Your task to perform on an android device: star an email in the gmail app Image 0: 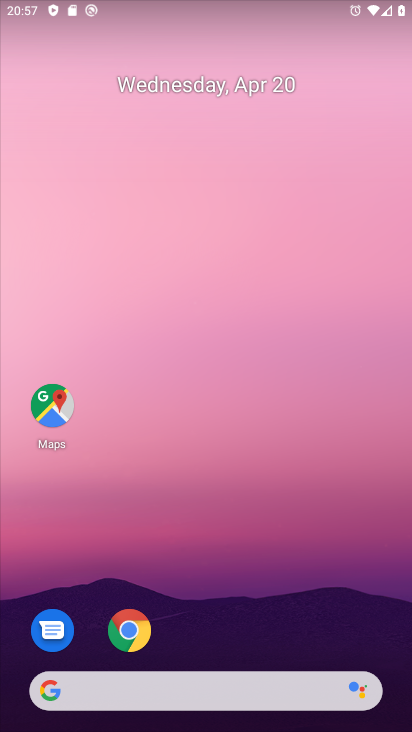
Step 0: drag from (237, 647) to (187, 147)
Your task to perform on an android device: star an email in the gmail app Image 1: 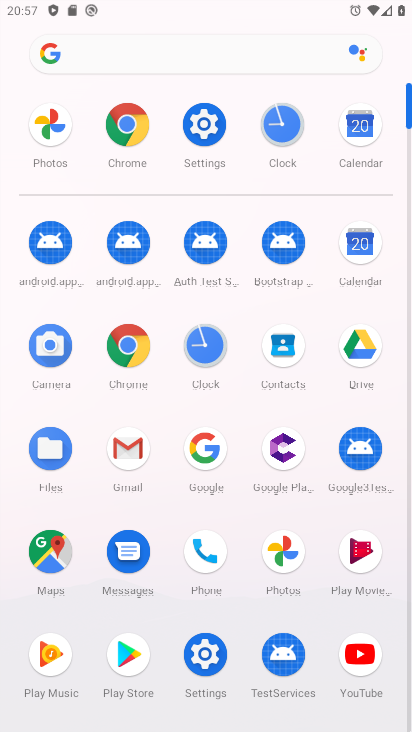
Step 1: click (126, 450)
Your task to perform on an android device: star an email in the gmail app Image 2: 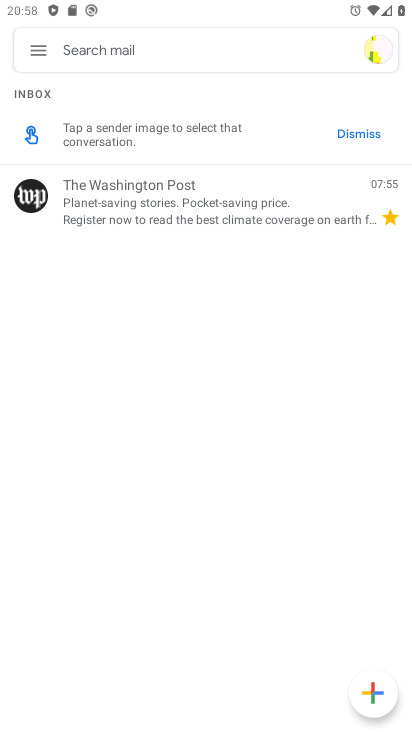
Step 2: click (34, 48)
Your task to perform on an android device: star an email in the gmail app Image 3: 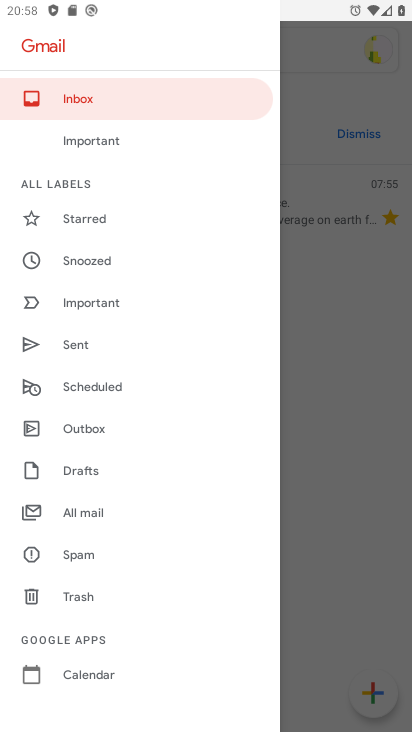
Step 3: click (384, 305)
Your task to perform on an android device: star an email in the gmail app Image 4: 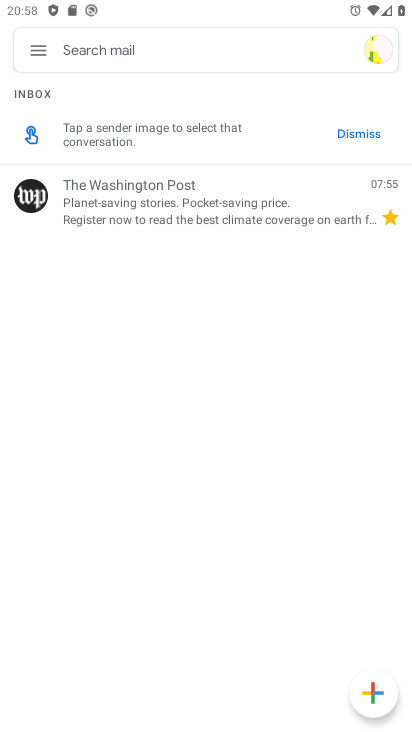
Step 4: task complete